Your task to perform on an android device: Open sound settings Image 0: 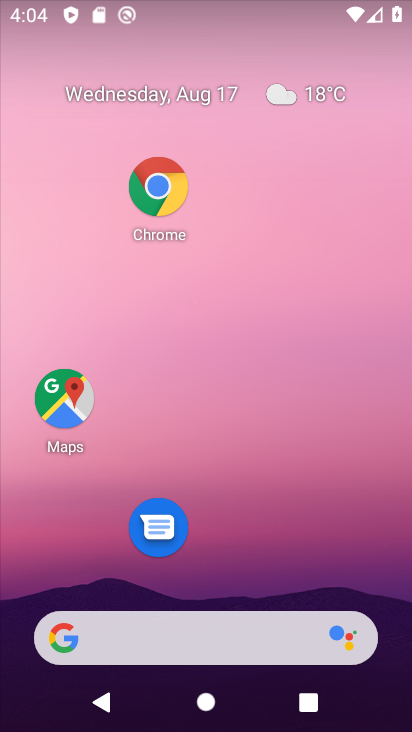
Step 0: drag from (284, 600) to (248, 84)
Your task to perform on an android device: Open sound settings Image 1: 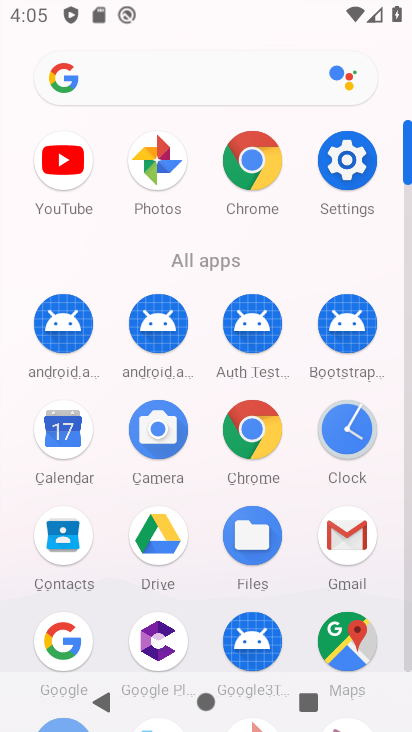
Step 1: click (345, 160)
Your task to perform on an android device: Open sound settings Image 2: 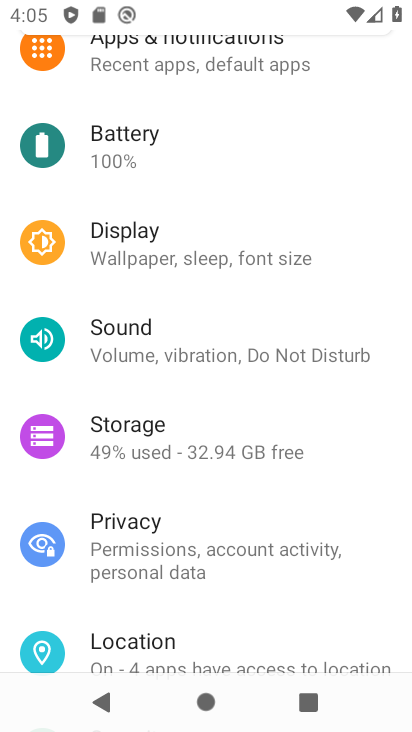
Step 2: click (241, 362)
Your task to perform on an android device: Open sound settings Image 3: 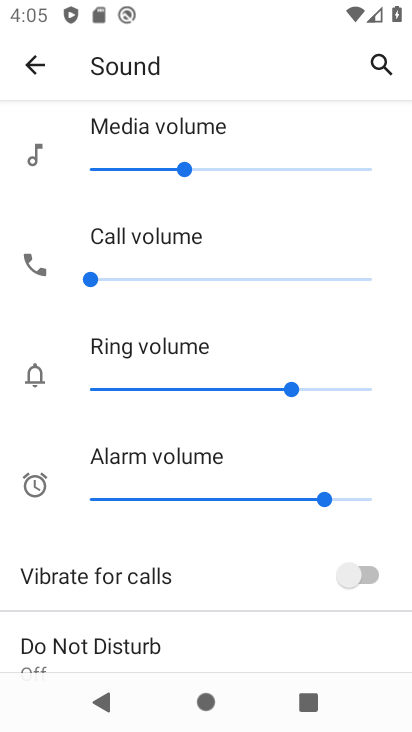
Step 3: task complete